Your task to perform on an android device: Is it going to rain tomorrow? Image 0: 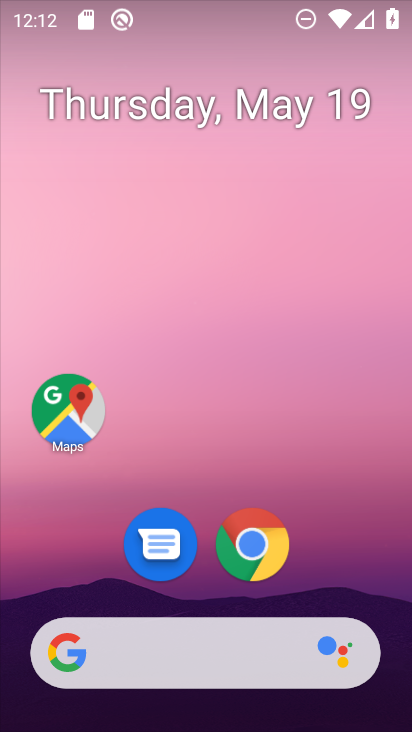
Step 0: click (203, 655)
Your task to perform on an android device: Is it going to rain tomorrow? Image 1: 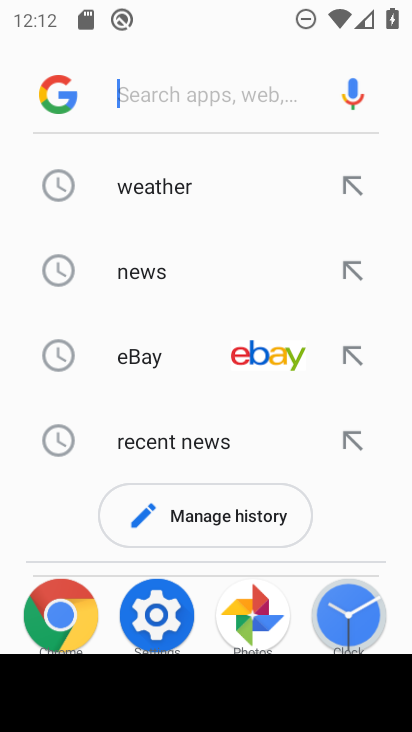
Step 1: type "rain"
Your task to perform on an android device: Is it going to rain tomorrow? Image 2: 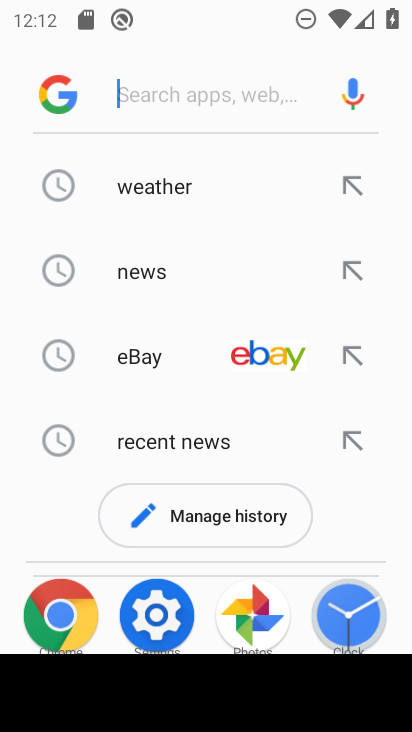
Step 2: click (177, 188)
Your task to perform on an android device: Is it going to rain tomorrow? Image 3: 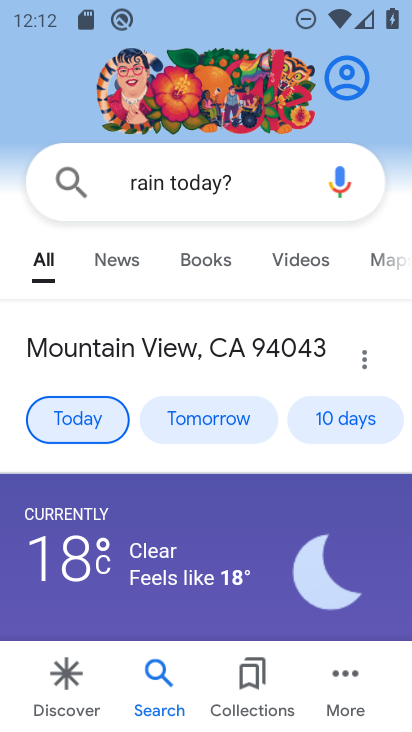
Step 3: click (181, 421)
Your task to perform on an android device: Is it going to rain tomorrow? Image 4: 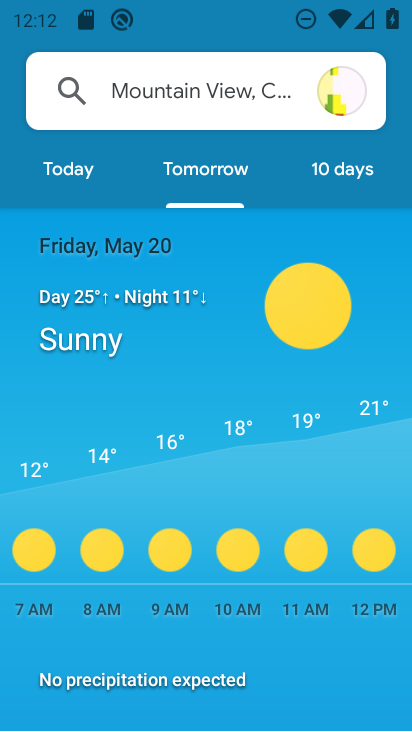
Step 4: task complete